Your task to perform on an android device: Go to location settings Image 0: 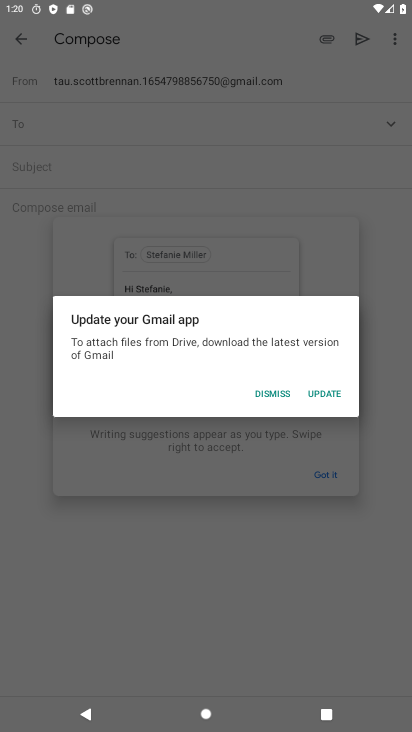
Step 0: click (184, 159)
Your task to perform on an android device: Go to location settings Image 1: 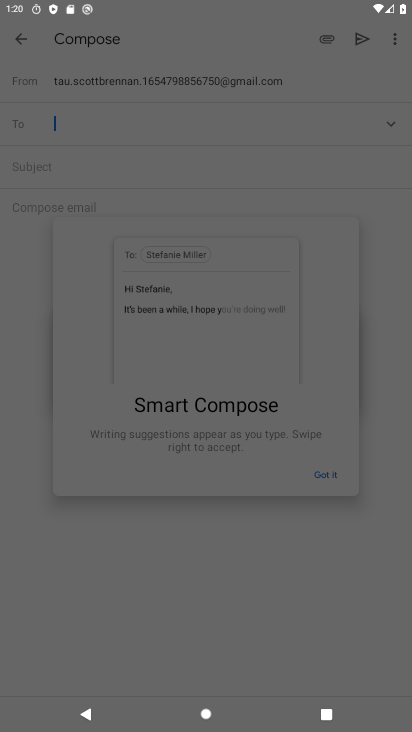
Step 1: press home button
Your task to perform on an android device: Go to location settings Image 2: 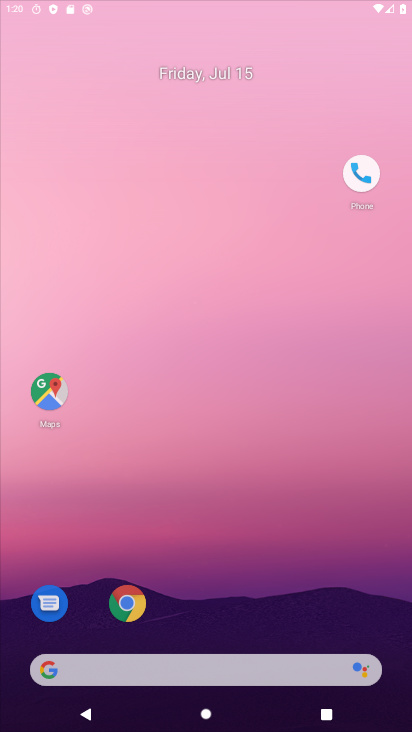
Step 2: drag from (210, 498) to (200, 144)
Your task to perform on an android device: Go to location settings Image 3: 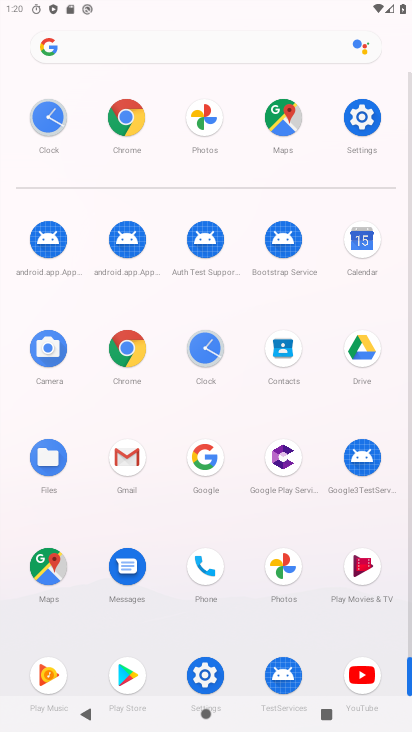
Step 3: click (197, 682)
Your task to perform on an android device: Go to location settings Image 4: 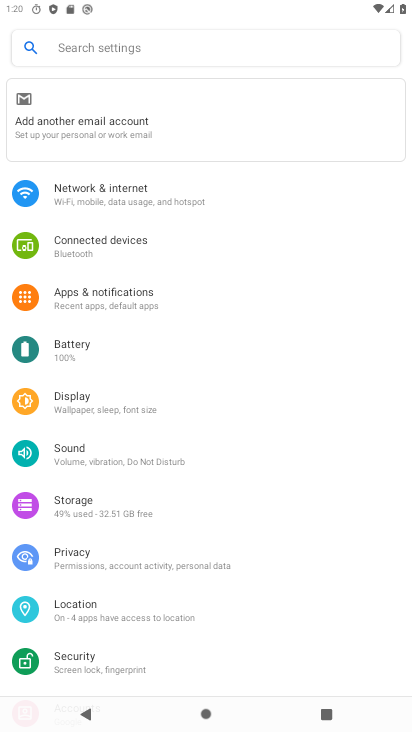
Step 4: click (115, 618)
Your task to perform on an android device: Go to location settings Image 5: 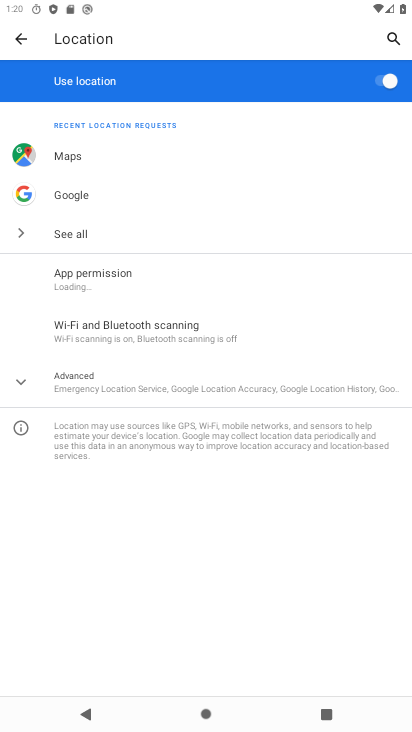
Step 5: click (98, 375)
Your task to perform on an android device: Go to location settings Image 6: 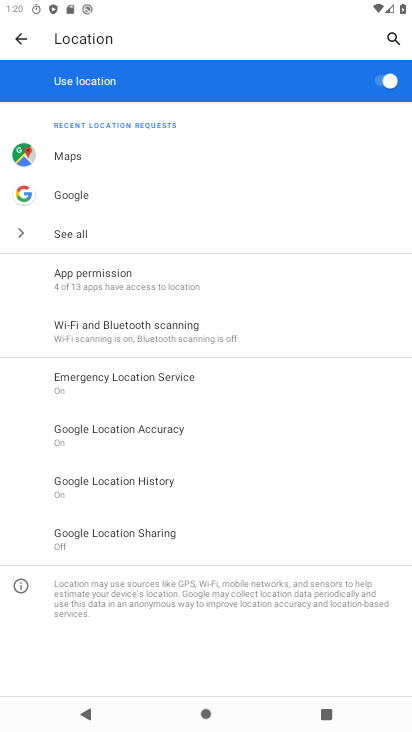
Step 6: task complete